Your task to perform on an android device: toggle sleep mode Image 0: 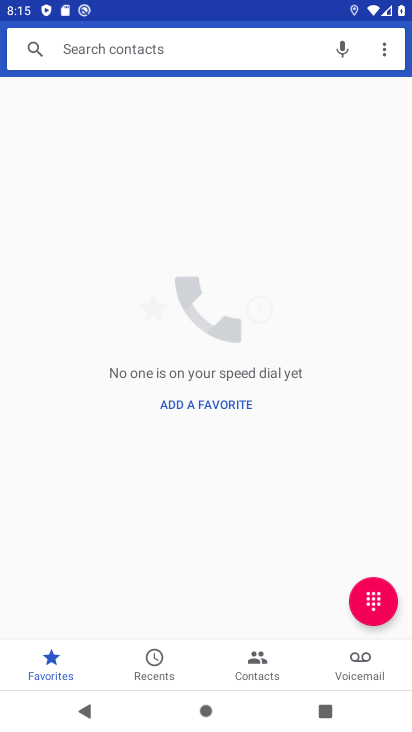
Step 0: press home button
Your task to perform on an android device: toggle sleep mode Image 1: 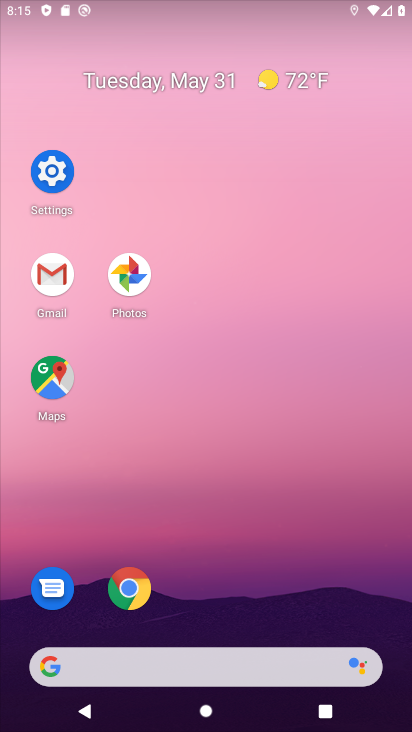
Step 1: click (55, 169)
Your task to perform on an android device: toggle sleep mode Image 2: 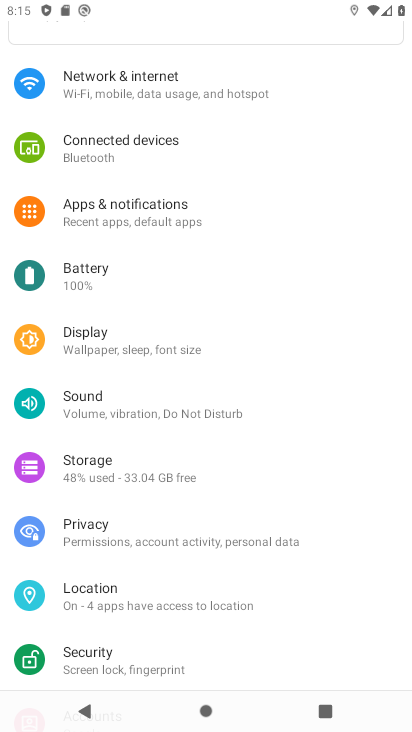
Step 2: click (208, 337)
Your task to perform on an android device: toggle sleep mode Image 3: 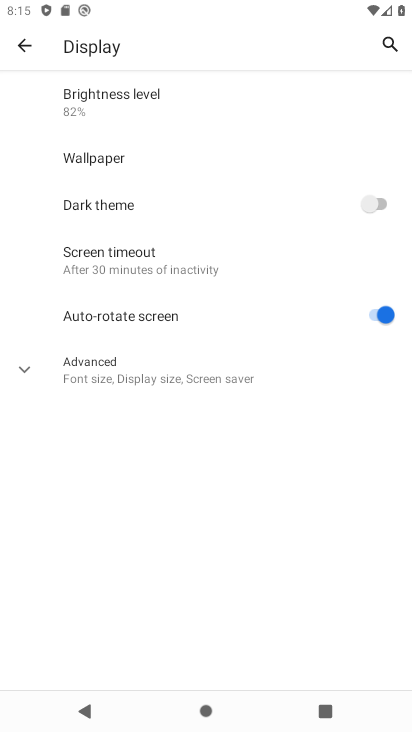
Step 3: click (164, 274)
Your task to perform on an android device: toggle sleep mode Image 4: 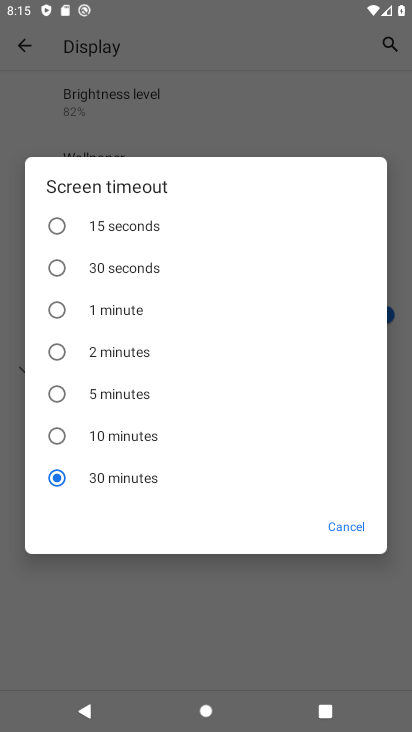
Step 4: click (160, 274)
Your task to perform on an android device: toggle sleep mode Image 5: 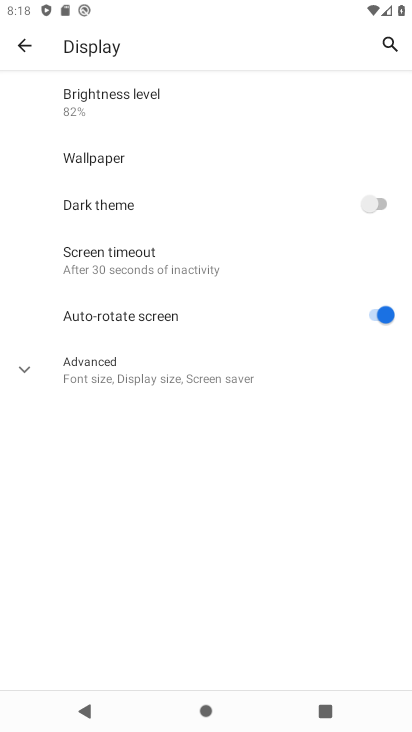
Step 5: task complete